Your task to perform on an android device: turn on translation in the chrome app Image 0: 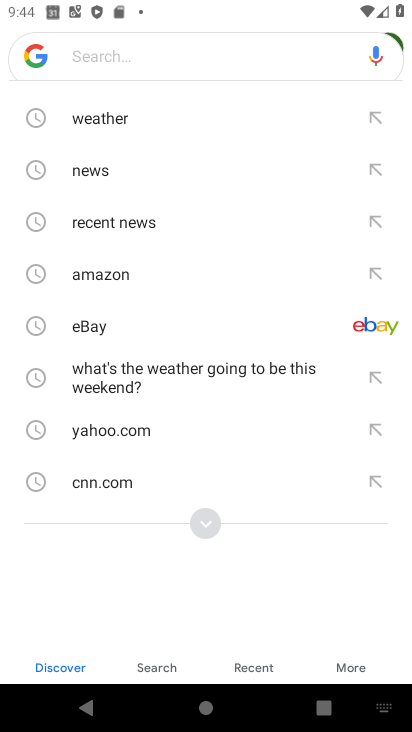
Step 0: press home button
Your task to perform on an android device: turn on translation in the chrome app Image 1: 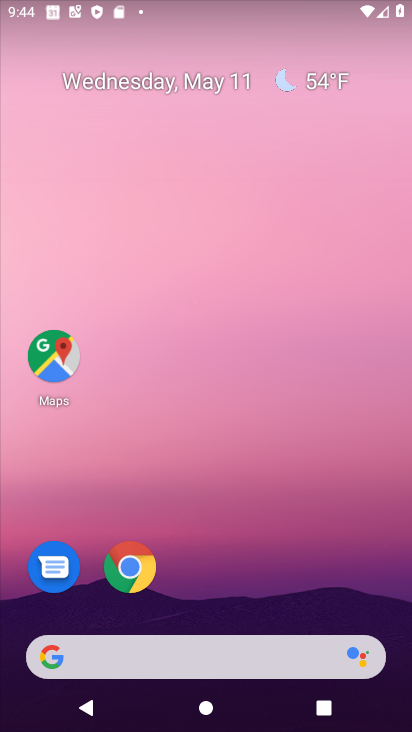
Step 1: click (130, 579)
Your task to perform on an android device: turn on translation in the chrome app Image 2: 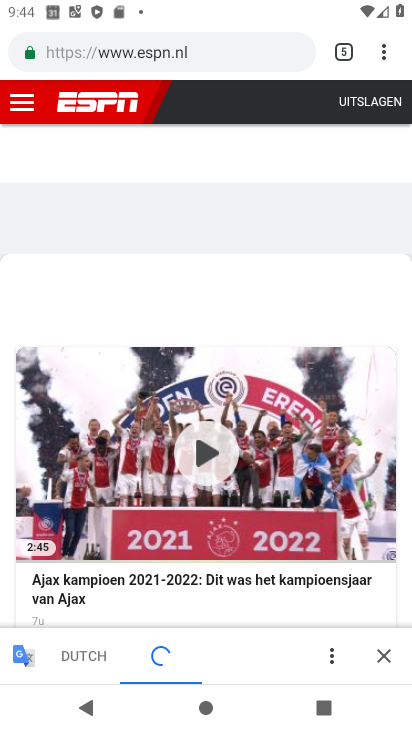
Step 2: click (383, 66)
Your task to perform on an android device: turn on translation in the chrome app Image 3: 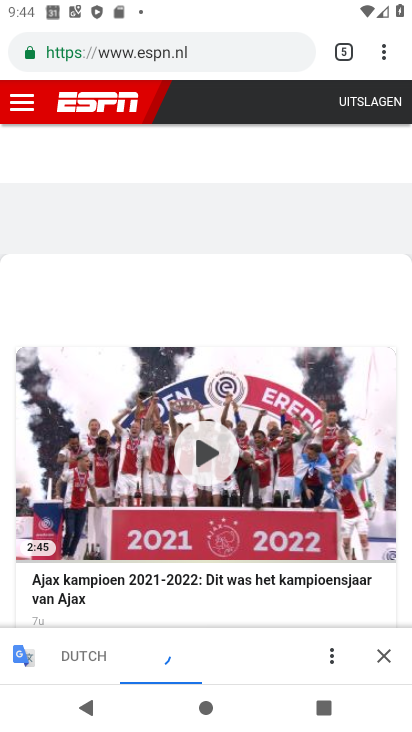
Step 3: click (388, 61)
Your task to perform on an android device: turn on translation in the chrome app Image 4: 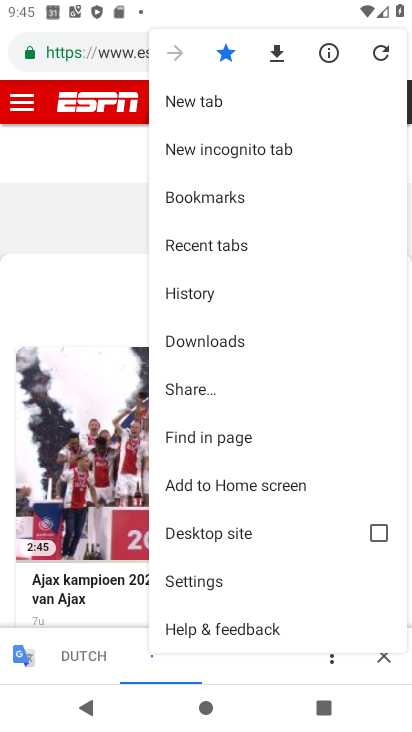
Step 4: click (217, 591)
Your task to perform on an android device: turn on translation in the chrome app Image 5: 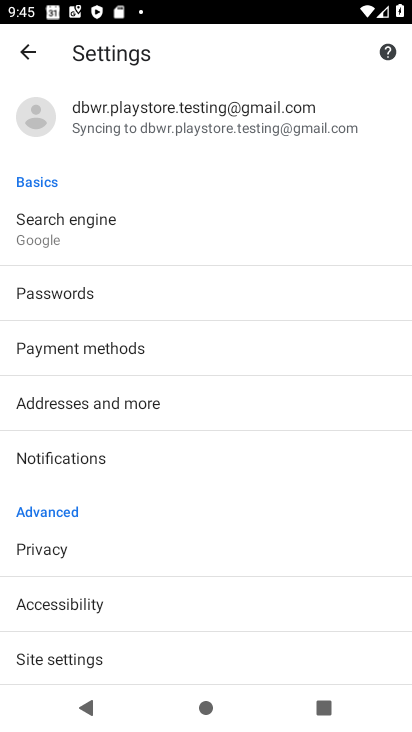
Step 5: drag from (101, 598) to (158, 294)
Your task to perform on an android device: turn on translation in the chrome app Image 6: 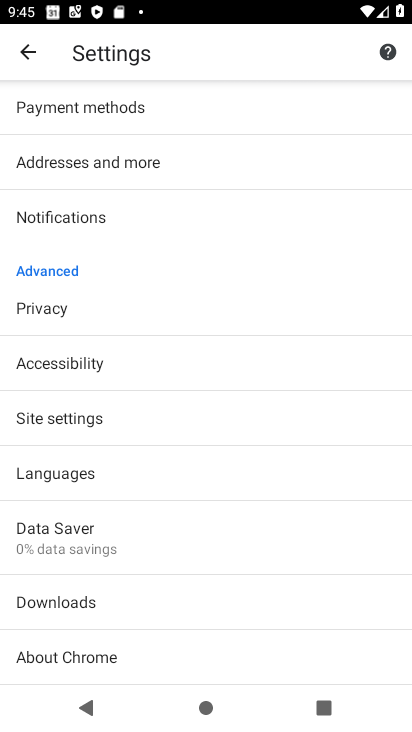
Step 6: click (77, 499)
Your task to perform on an android device: turn on translation in the chrome app Image 7: 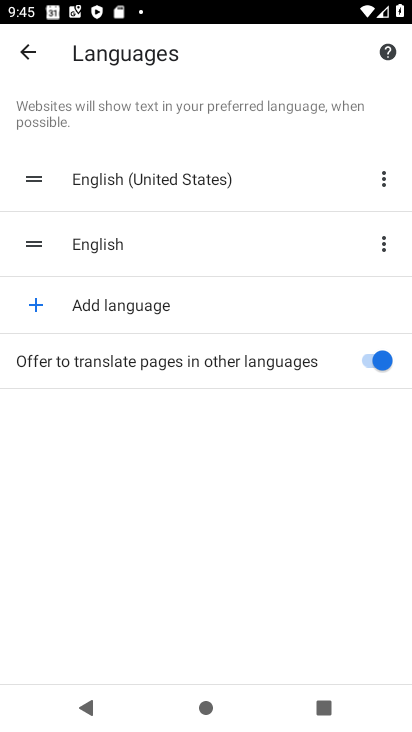
Step 7: task complete